Your task to perform on an android device: Do I have any events this weekend? Image 0: 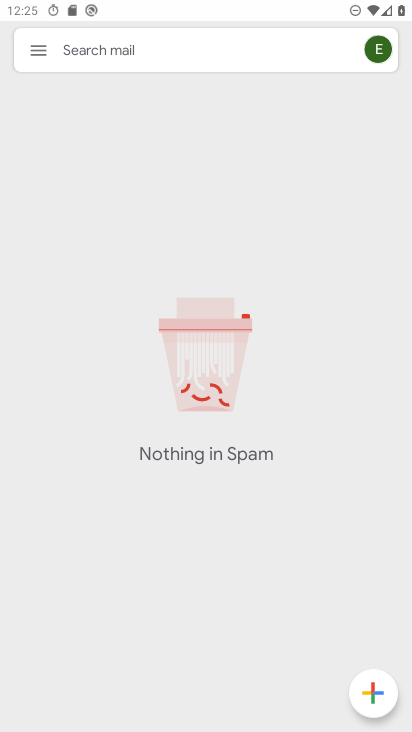
Step 0: press home button
Your task to perform on an android device: Do I have any events this weekend? Image 1: 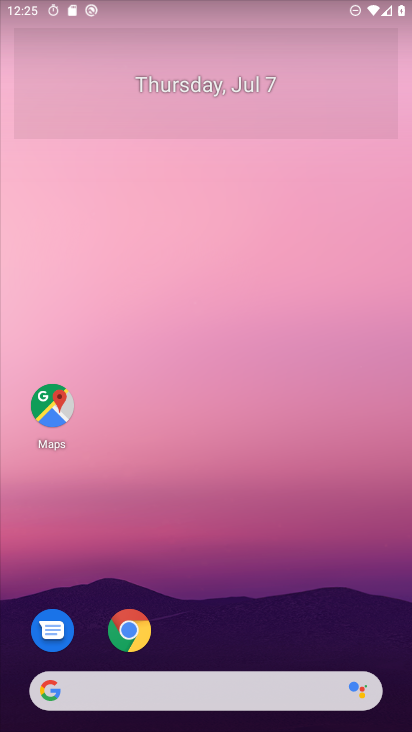
Step 1: drag from (274, 620) to (227, 17)
Your task to perform on an android device: Do I have any events this weekend? Image 2: 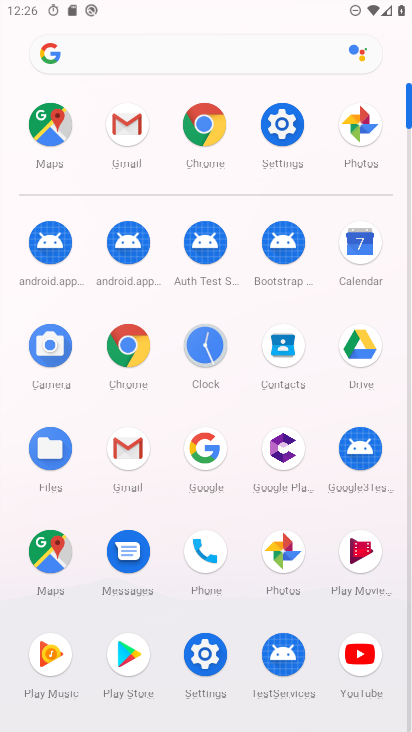
Step 2: click (356, 255)
Your task to perform on an android device: Do I have any events this weekend? Image 3: 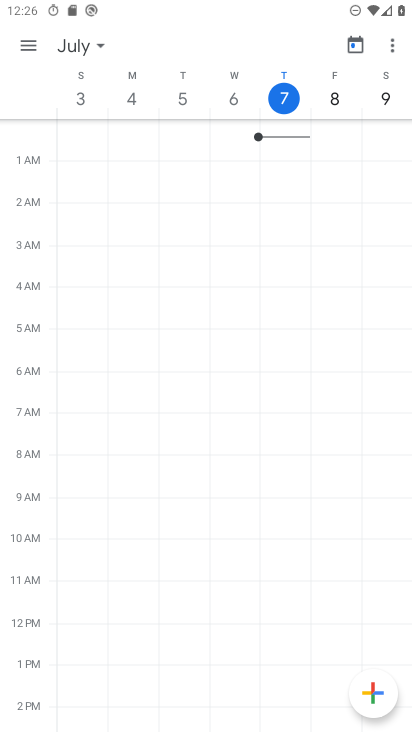
Step 3: click (34, 43)
Your task to perform on an android device: Do I have any events this weekend? Image 4: 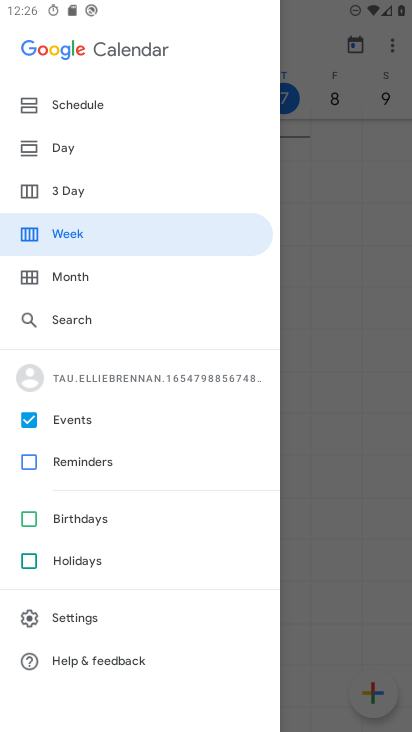
Step 4: click (167, 236)
Your task to perform on an android device: Do I have any events this weekend? Image 5: 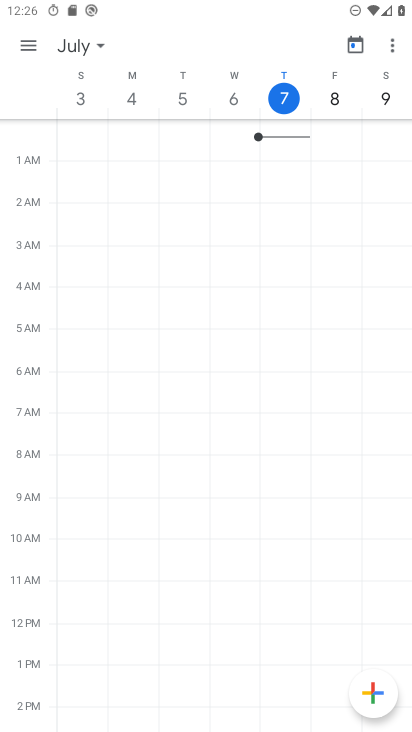
Step 5: task complete